Your task to perform on an android device: Clear the cart on costco.com. Add logitech g pro to the cart on costco.com, then select checkout. Image 0: 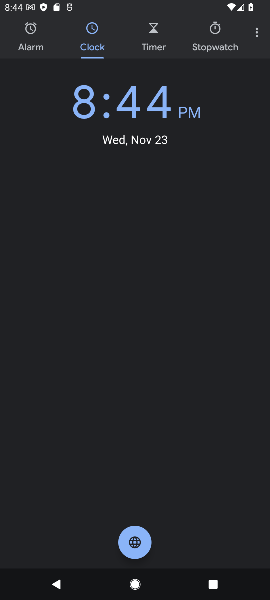
Step 0: press home button
Your task to perform on an android device: Clear the cart on costco.com. Add logitech g pro to the cart on costco.com, then select checkout. Image 1: 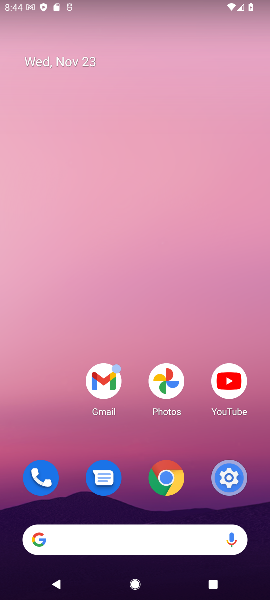
Step 1: click (141, 555)
Your task to perform on an android device: Clear the cart on costco.com. Add logitech g pro to the cart on costco.com, then select checkout. Image 2: 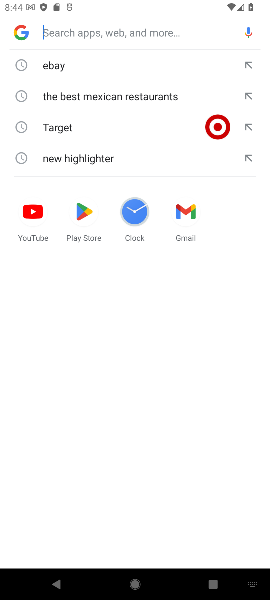
Step 2: type "costco.com"
Your task to perform on an android device: Clear the cart on costco.com. Add logitech g pro to the cart on costco.com, then select checkout. Image 3: 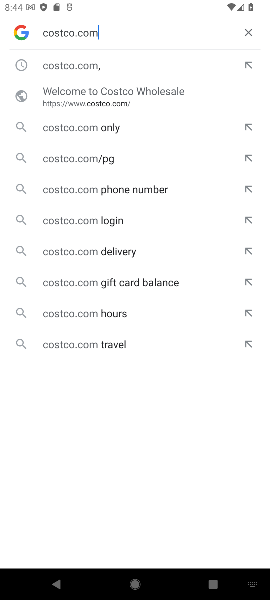
Step 3: click (60, 75)
Your task to perform on an android device: Clear the cart on costco.com. Add logitech g pro to the cart on costco.com, then select checkout. Image 4: 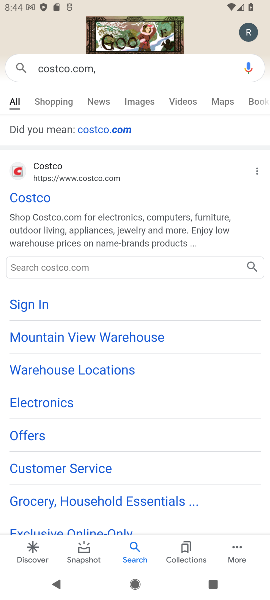
Step 4: click (30, 198)
Your task to perform on an android device: Clear the cart on costco.com. Add logitech g pro to the cart on costco.com, then select checkout. Image 5: 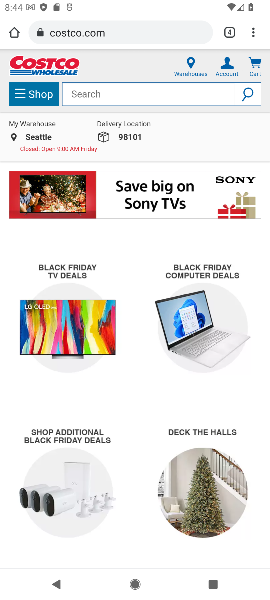
Step 5: click (158, 93)
Your task to perform on an android device: Clear the cart on costco.com. Add logitech g pro to the cart on costco.com, then select checkout. Image 6: 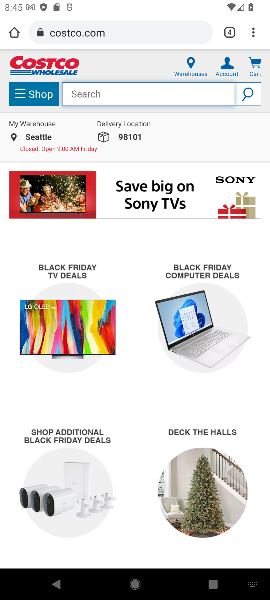
Step 6: type "logitech g pro"
Your task to perform on an android device: Clear the cart on costco.com. Add logitech g pro to the cart on costco.com, then select checkout. Image 7: 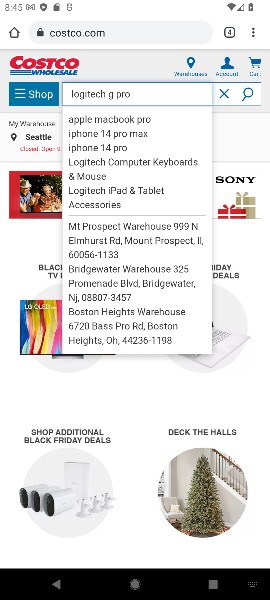
Step 7: click (244, 95)
Your task to perform on an android device: Clear the cart on costco.com. Add logitech g pro to the cart on costco.com, then select checkout. Image 8: 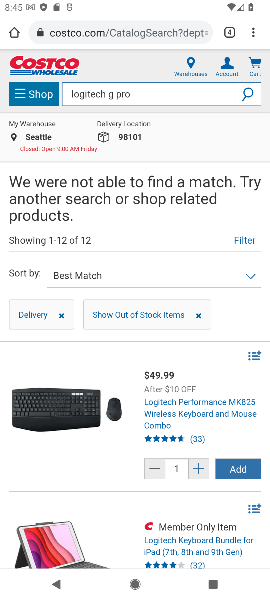
Step 8: click (231, 466)
Your task to perform on an android device: Clear the cart on costco.com. Add logitech g pro to the cart on costco.com, then select checkout. Image 9: 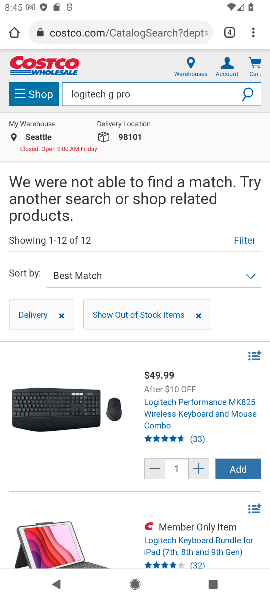
Step 9: task complete